Your task to perform on an android device: check the backup settings in the google photos Image 0: 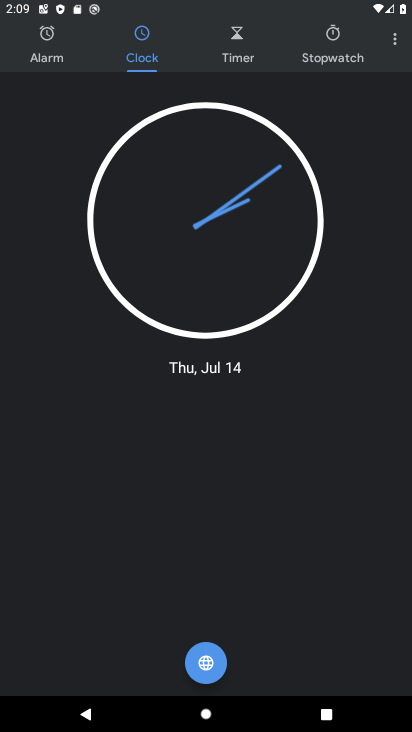
Step 0: press home button
Your task to perform on an android device: check the backup settings in the google photos Image 1: 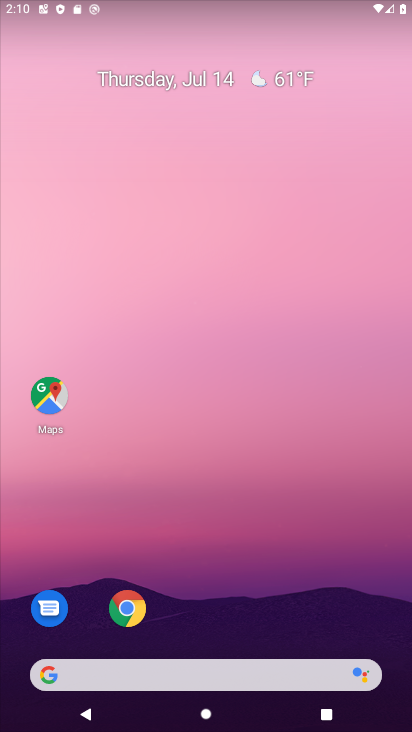
Step 1: drag from (190, 654) to (191, 160)
Your task to perform on an android device: check the backup settings in the google photos Image 2: 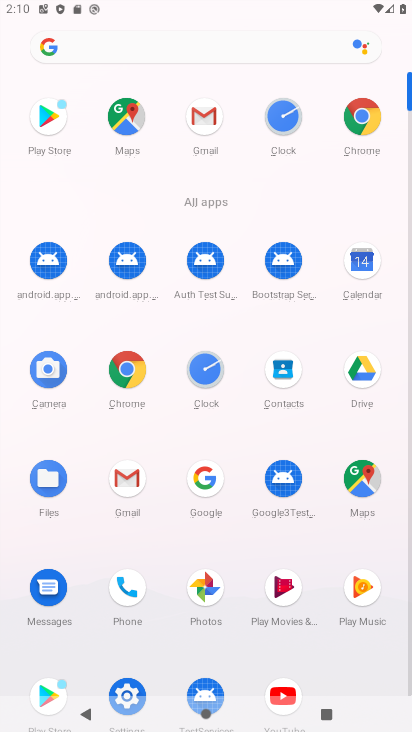
Step 2: click (202, 592)
Your task to perform on an android device: check the backup settings in the google photos Image 3: 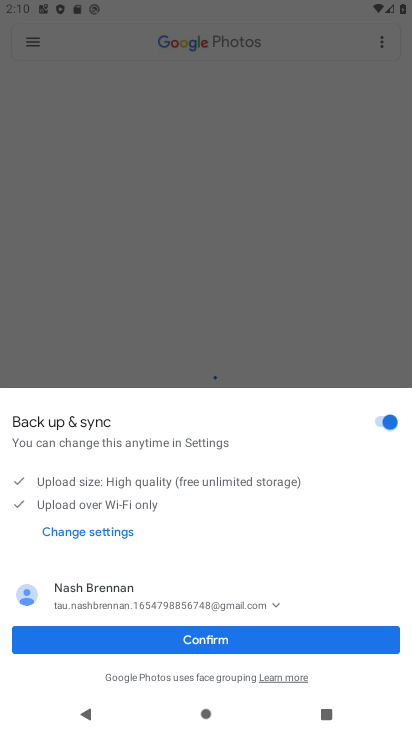
Step 3: click (165, 643)
Your task to perform on an android device: check the backup settings in the google photos Image 4: 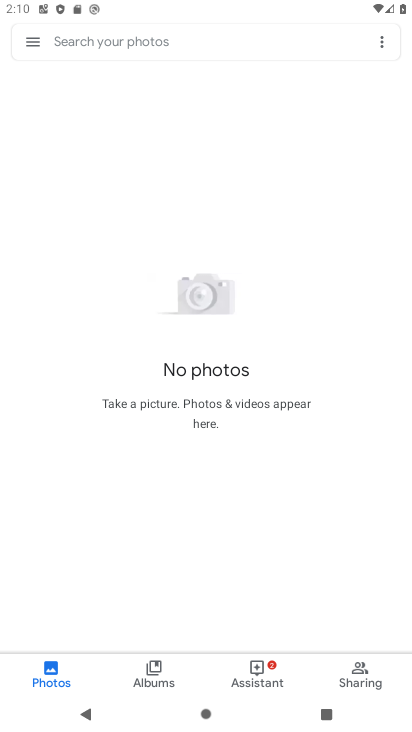
Step 4: click (29, 41)
Your task to perform on an android device: check the backup settings in the google photos Image 5: 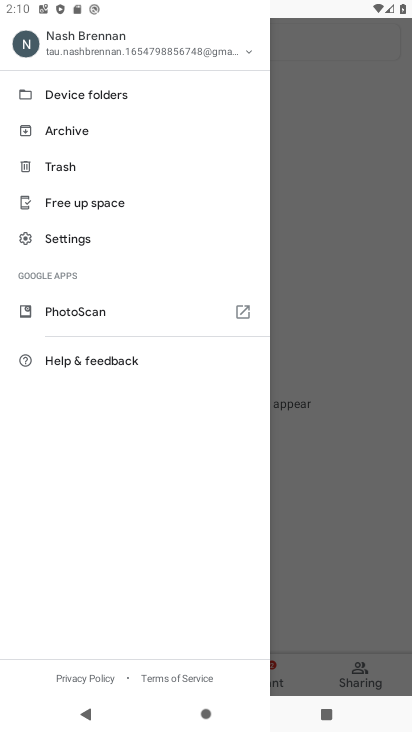
Step 5: click (59, 232)
Your task to perform on an android device: check the backup settings in the google photos Image 6: 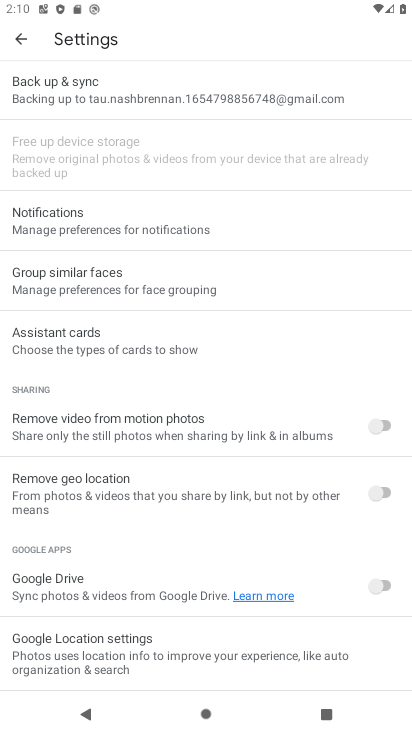
Step 6: click (62, 88)
Your task to perform on an android device: check the backup settings in the google photos Image 7: 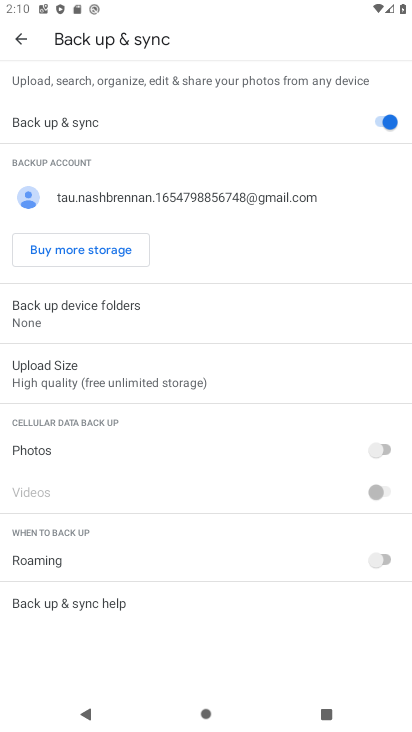
Step 7: task complete